Your task to perform on an android device: see sites visited before in the chrome app Image 0: 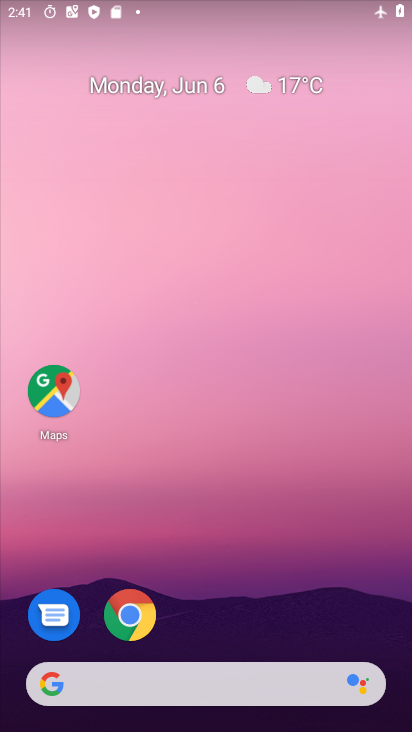
Step 0: drag from (232, 647) to (300, 117)
Your task to perform on an android device: see sites visited before in the chrome app Image 1: 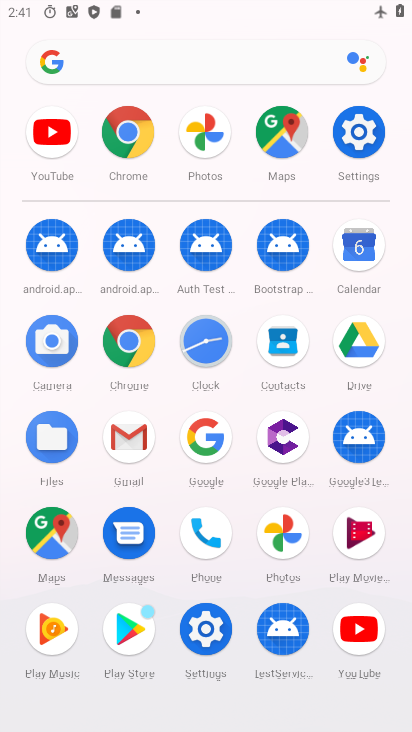
Step 1: click (124, 335)
Your task to perform on an android device: see sites visited before in the chrome app Image 2: 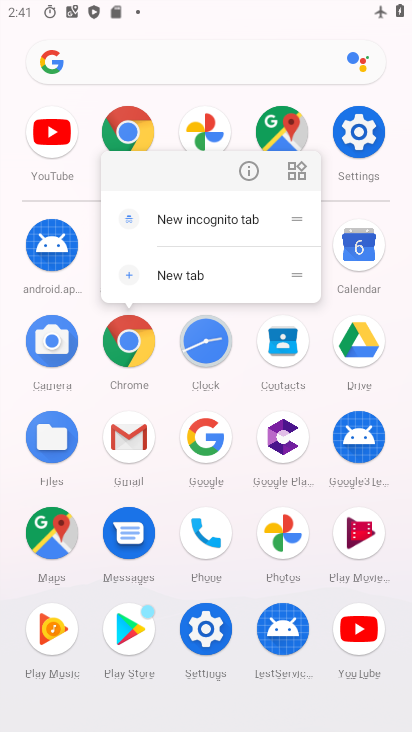
Step 2: click (248, 166)
Your task to perform on an android device: see sites visited before in the chrome app Image 3: 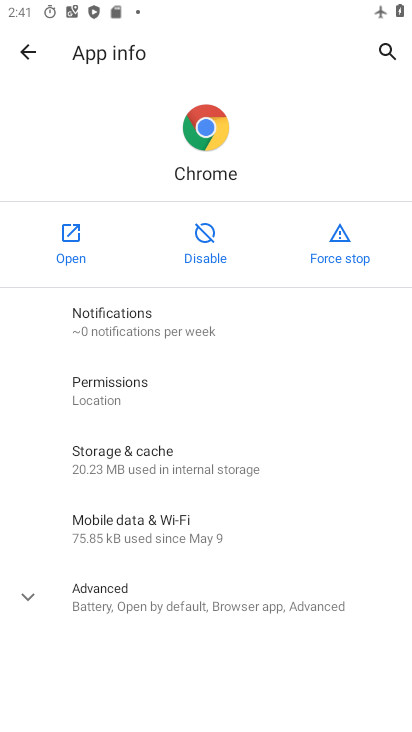
Step 3: click (85, 225)
Your task to perform on an android device: see sites visited before in the chrome app Image 4: 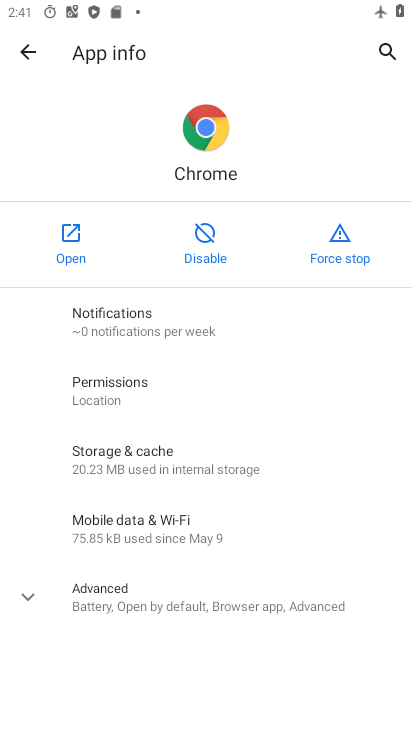
Step 4: click (85, 225)
Your task to perform on an android device: see sites visited before in the chrome app Image 5: 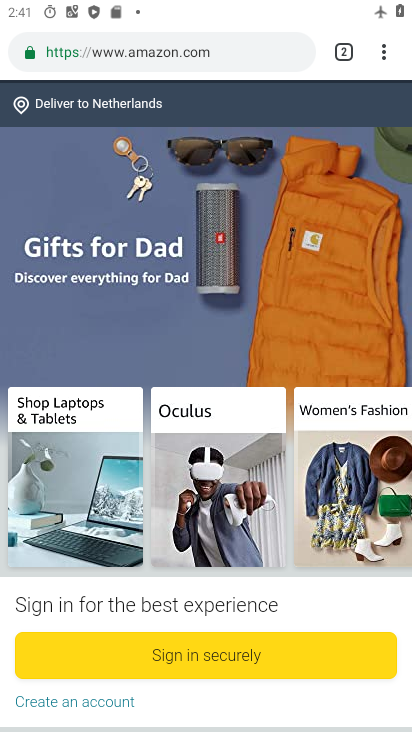
Step 5: task complete